Your task to perform on an android device: star an email in the gmail app Image 0: 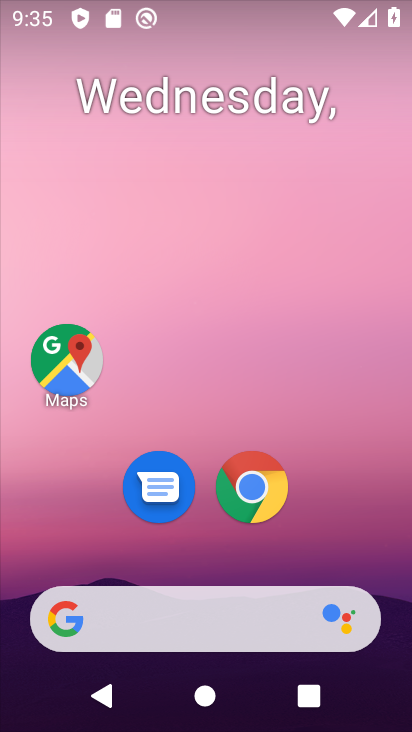
Step 0: drag from (93, 427) to (200, 237)
Your task to perform on an android device: star an email in the gmail app Image 1: 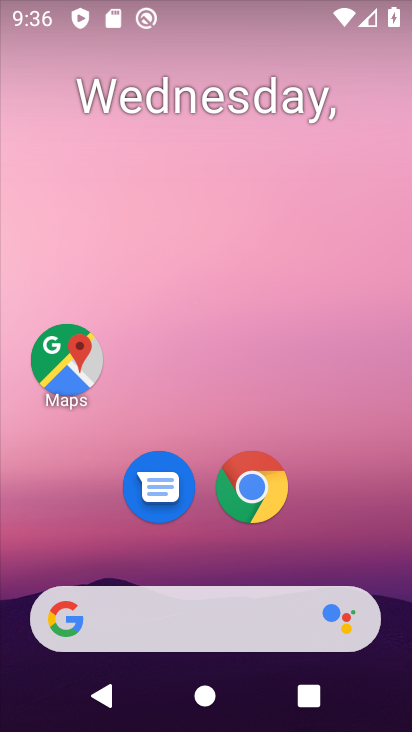
Step 1: drag from (130, 421) to (200, 268)
Your task to perform on an android device: star an email in the gmail app Image 2: 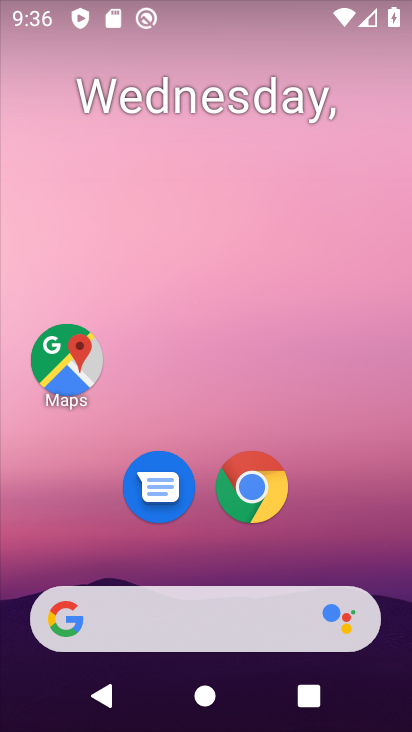
Step 2: drag from (117, 448) to (245, 200)
Your task to perform on an android device: star an email in the gmail app Image 3: 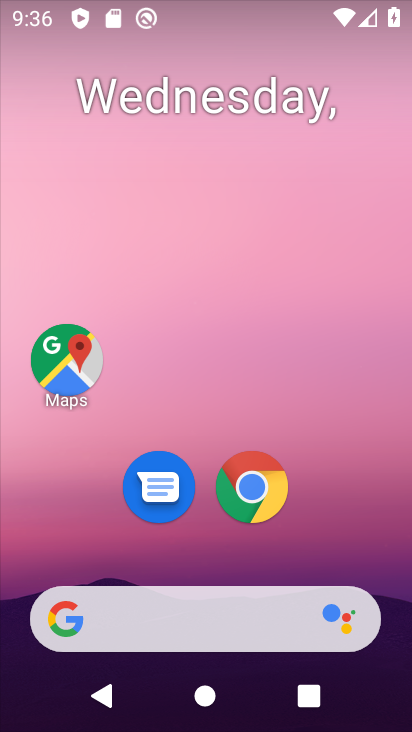
Step 3: drag from (110, 453) to (257, 223)
Your task to perform on an android device: star an email in the gmail app Image 4: 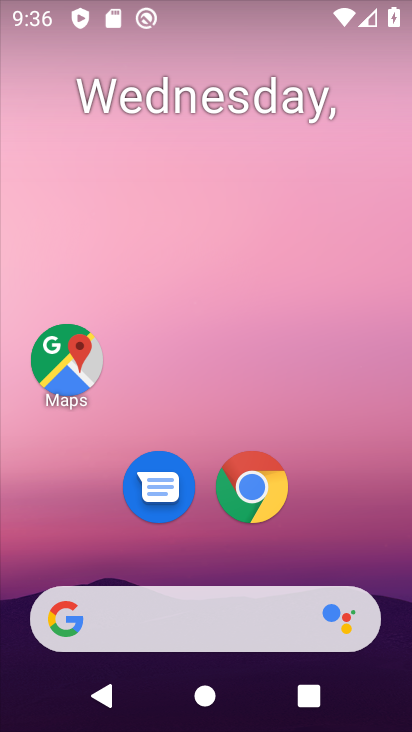
Step 4: drag from (5, 622) to (279, 262)
Your task to perform on an android device: star an email in the gmail app Image 5: 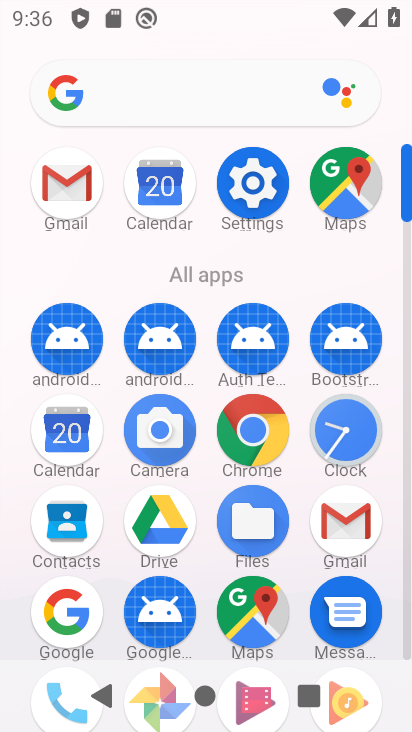
Step 5: click (357, 537)
Your task to perform on an android device: star an email in the gmail app Image 6: 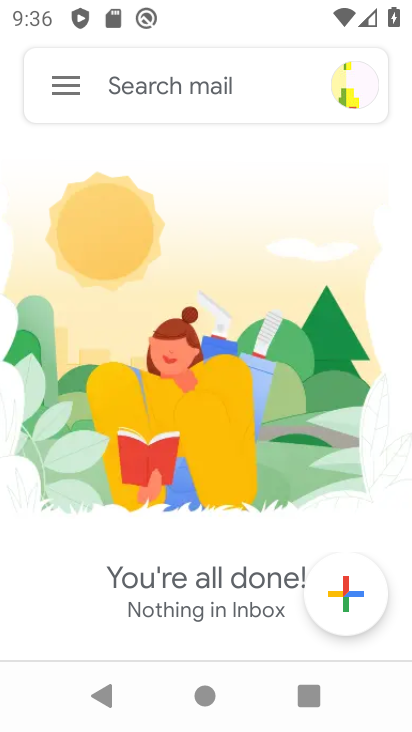
Step 6: click (42, 79)
Your task to perform on an android device: star an email in the gmail app Image 7: 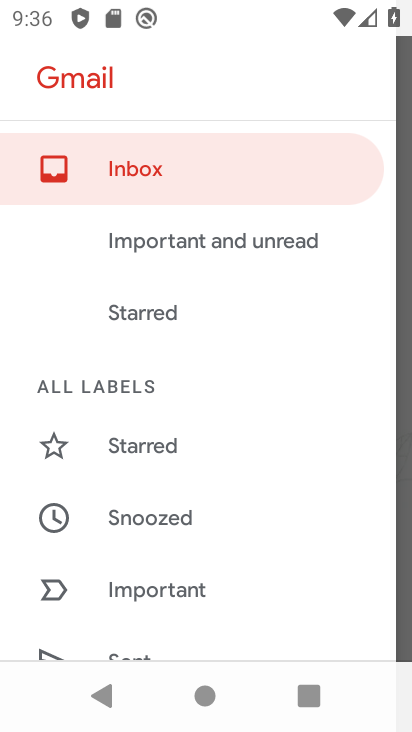
Step 7: click (274, 192)
Your task to perform on an android device: star an email in the gmail app Image 8: 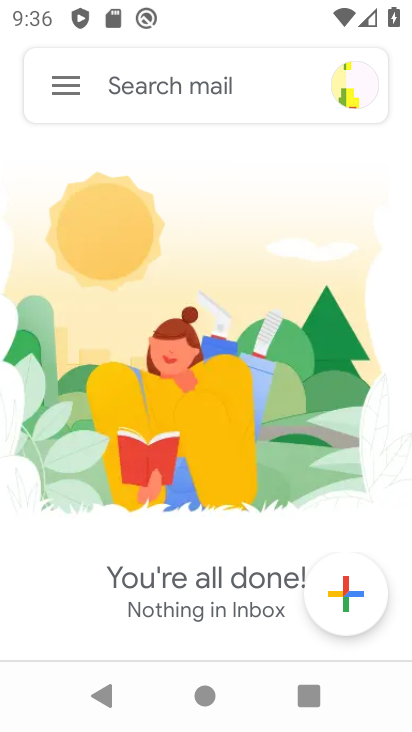
Step 8: click (64, 95)
Your task to perform on an android device: star an email in the gmail app Image 9: 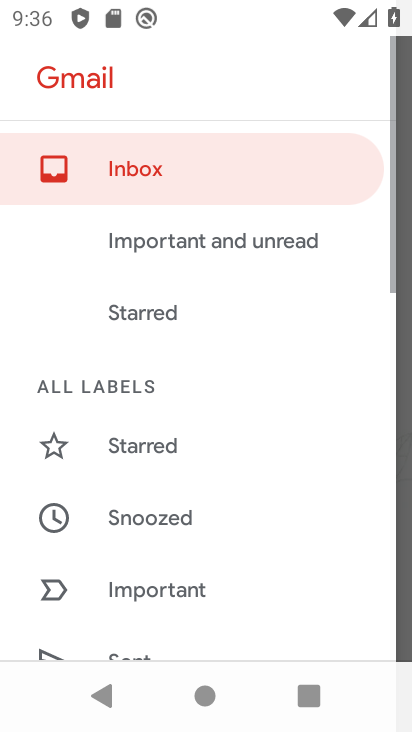
Step 9: task complete